Your task to perform on an android device: Go to battery settings Image 0: 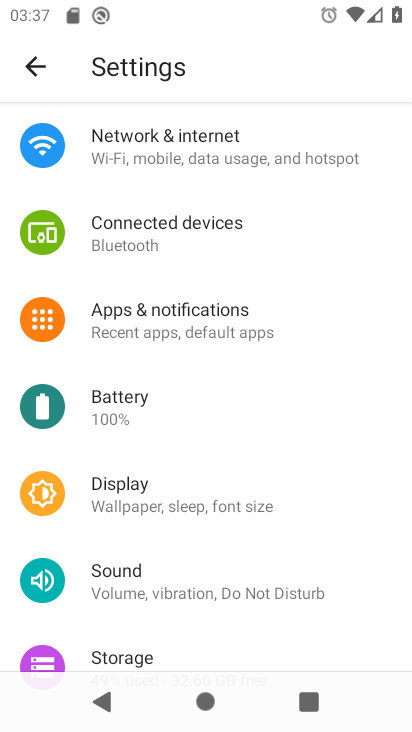
Step 0: click (156, 403)
Your task to perform on an android device: Go to battery settings Image 1: 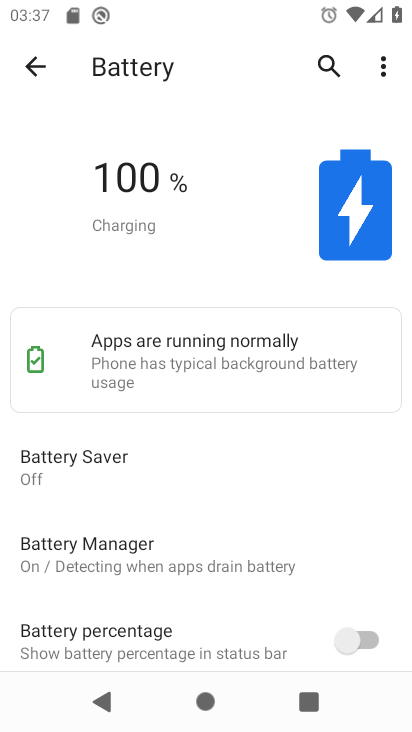
Step 1: task complete